Your task to perform on an android device: toggle priority inbox in the gmail app Image 0: 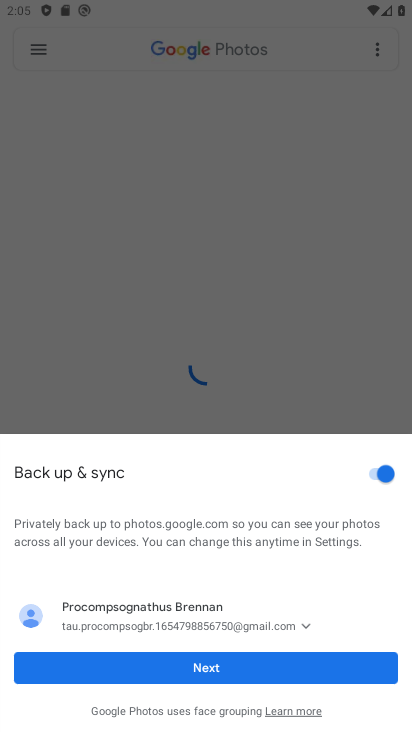
Step 0: press home button
Your task to perform on an android device: toggle priority inbox in the gmail app Image 1: 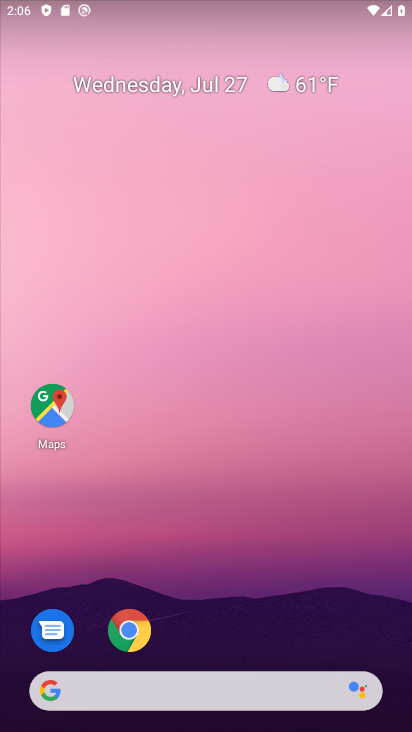
Step 1: drag from (264, 619) to (170, 48)
Your task to perform on an android device: toggle priority inbox in the gmail app Image 2: 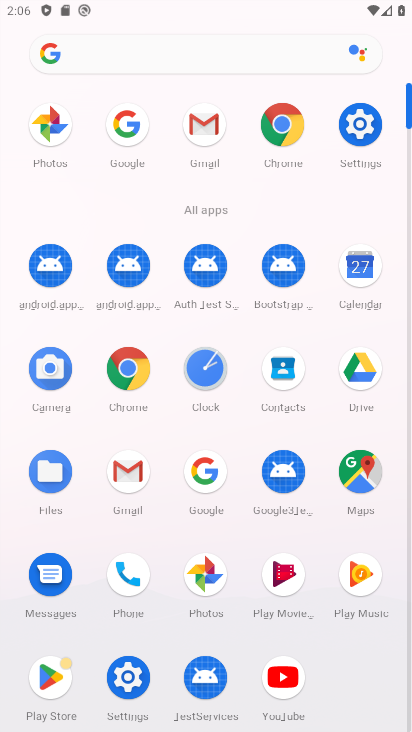
Step 2: click (138, 471)
Your task to perform on an android device: toggle priority inbox in the gmail app Image 3: 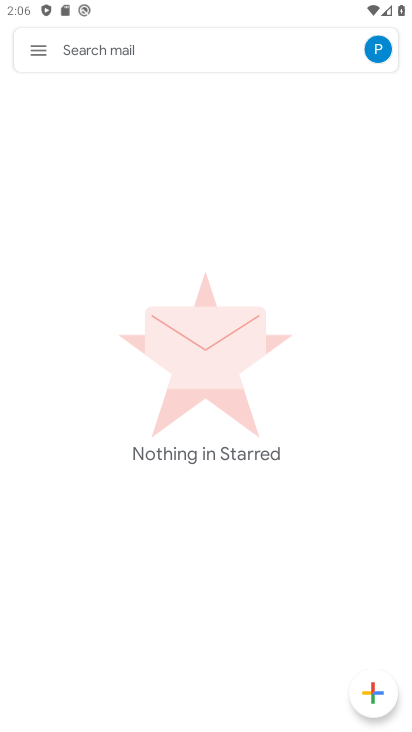
Step 3: click (30, 48)
Your task to perform on an android device: toggle priority inbox in the gmail app Image 4: 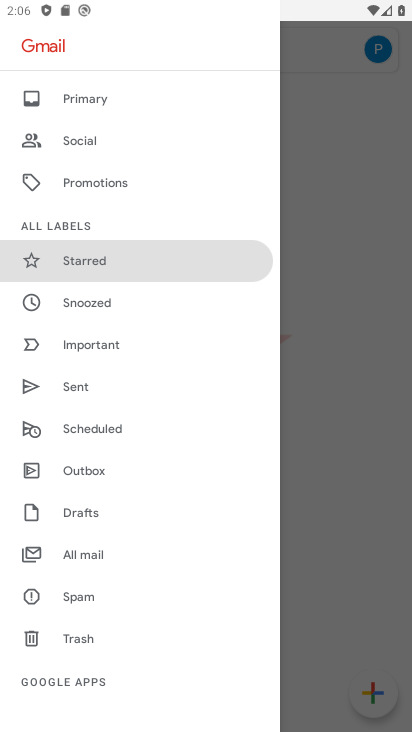
Step 4: drag from (77, 680) to (61, 391)
Your task to perform on an android device: toggle priority inbox in the gmail app Image 5: 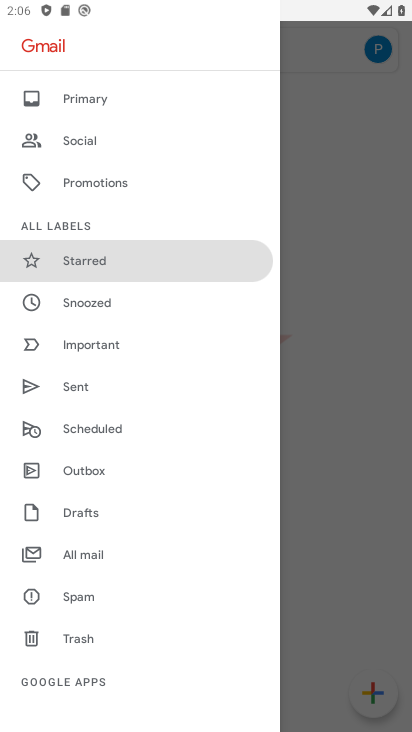
Step 5: drag from (174, 643) to (161, 125)
Your task to perform on an android device: toggle priority inbox in the gmail app Image 6: 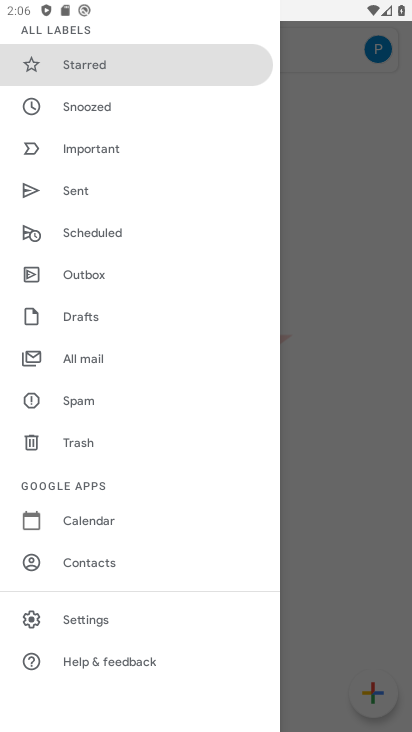
Step 6: click (118, 614)
Your task to perform on an android device: toggle priority inbox in the gmail app Image 7: 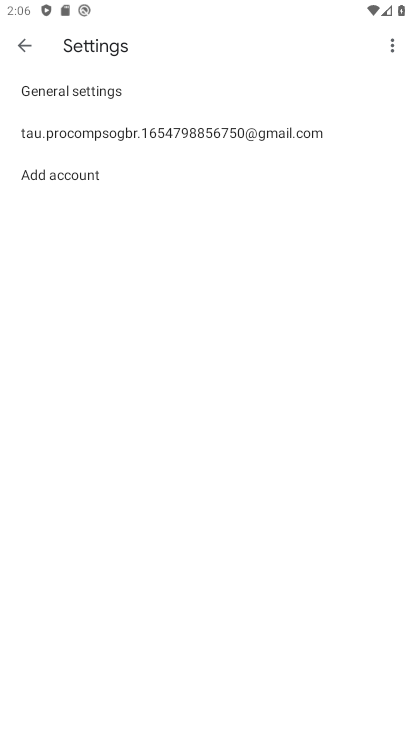
Step 7: click (236, 134)
Your task to perform on an android device: toggle priority inbox in the gmail app Image 8: 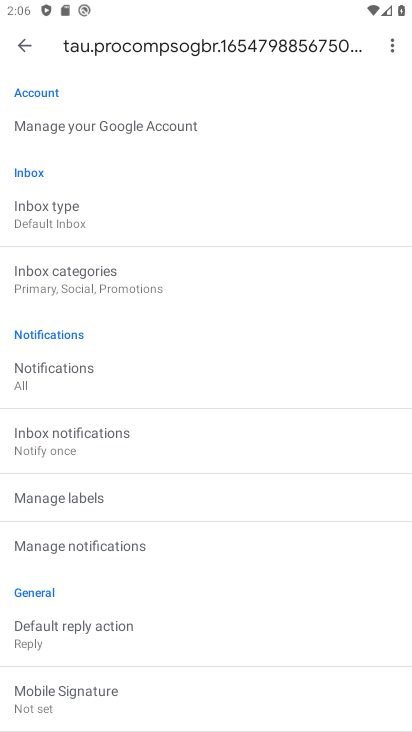
Step 8: click (126, 212)
Your task to perform on an android device: toggle priority inbox in the gmail app Image 9: 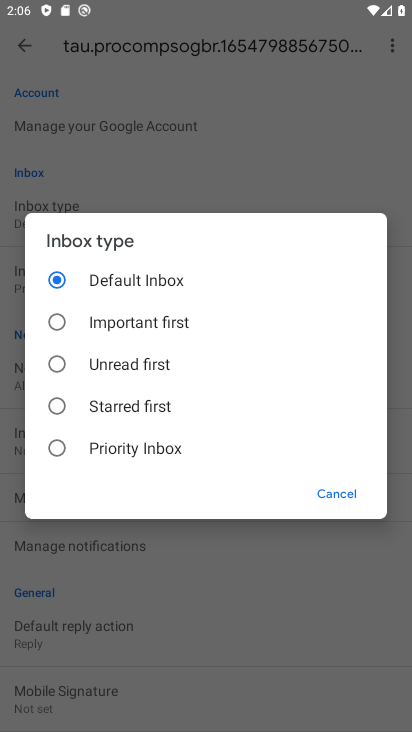
Step 9: click (124, 453)
Your task to perform on an android device: toggle priority inbox in the gmail app Image 10: 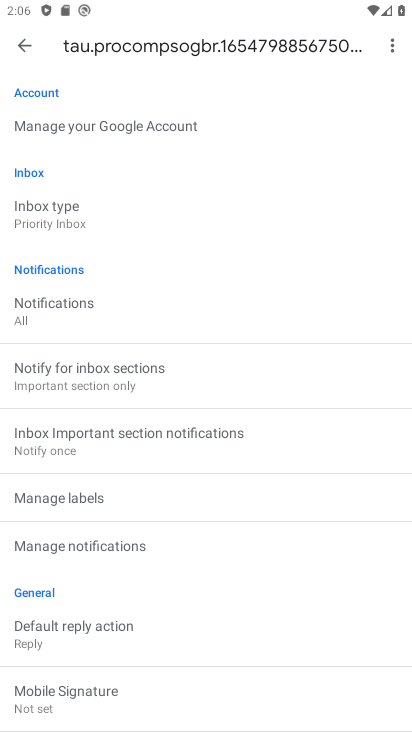
Step 10: task complete